Your task to perform on an android device: Go to Amazon Image 0: 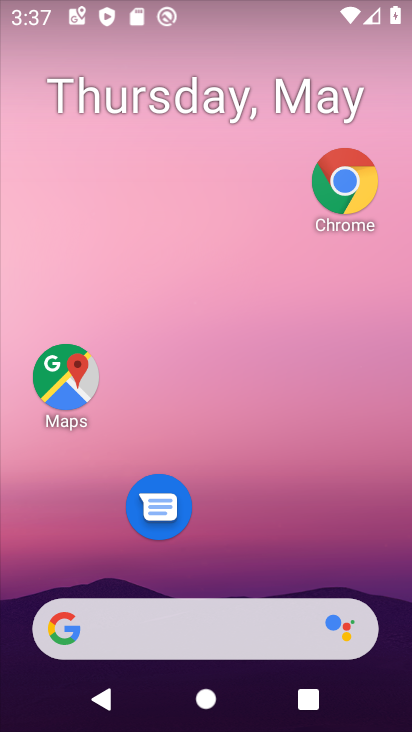
Step 0: drag from (282, 528) to (297, 90)
Your task to perform on an android device: Go to Amazon Image 1: 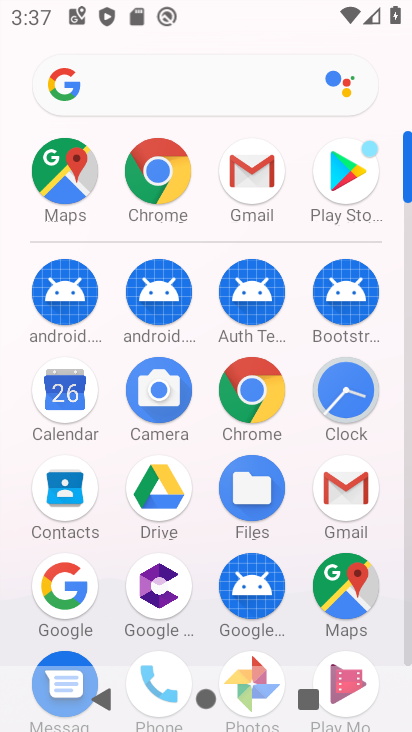
Step 1: click (150, 167)
Your task to perform on an android device: Go to Amazon Image 2: 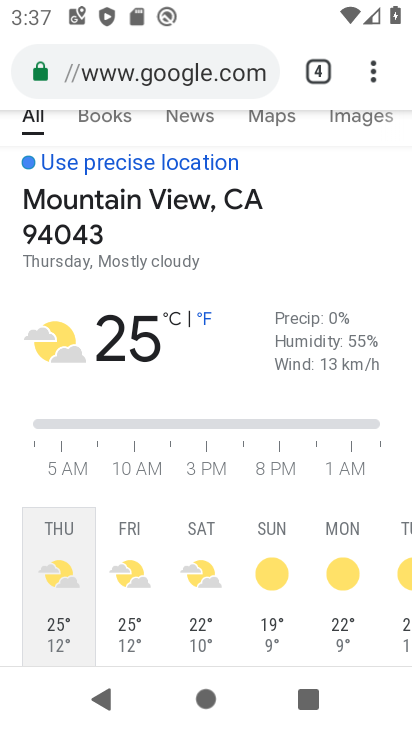
Step 2: drag from (380, 64) to (165, 121)
Your task to perform on an android device: Go to Amazon Image 3: 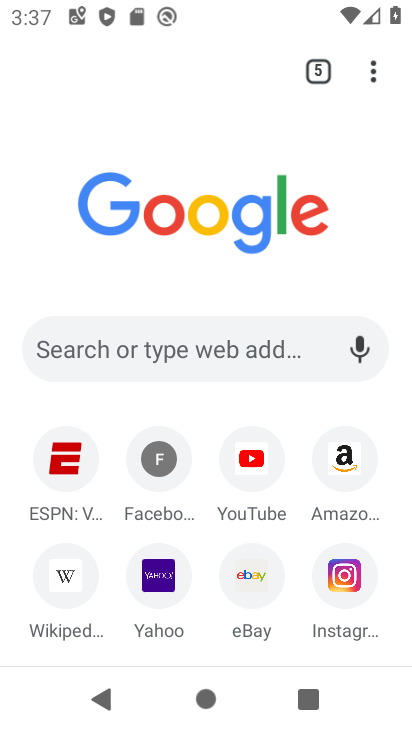
Step 3: click (343, 450)
Your task to perform on an android device: Go to Amazon Image 4: 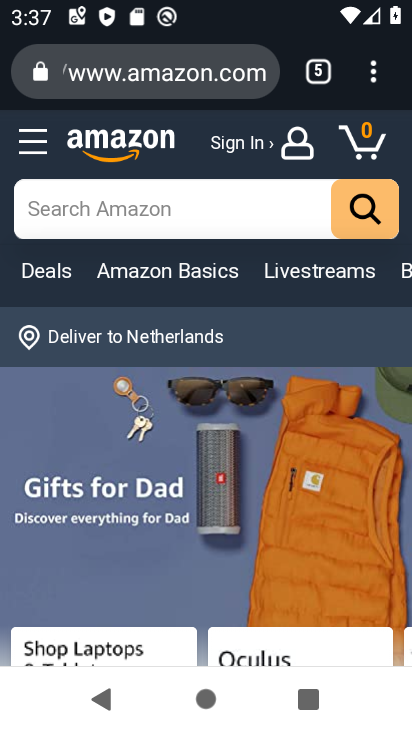
Step 4: task complete